Your task to perform on an android device: Open calendar and show me the fourth week of next month Image 0: 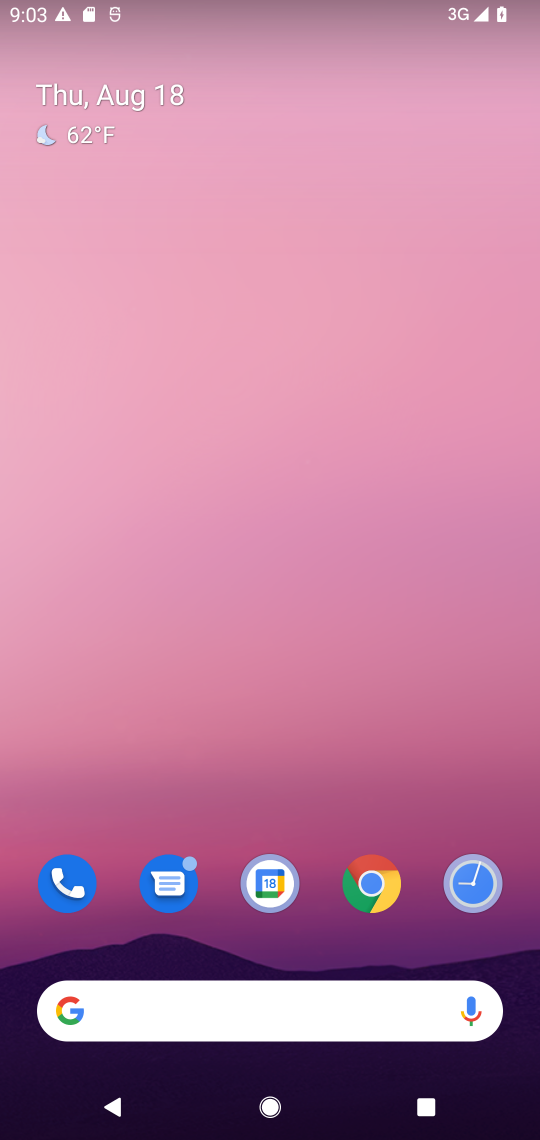
Step 0: click (258, 886)
Your task to perform on an android device: Open calendar and show me the fourth week of next month Image 1: 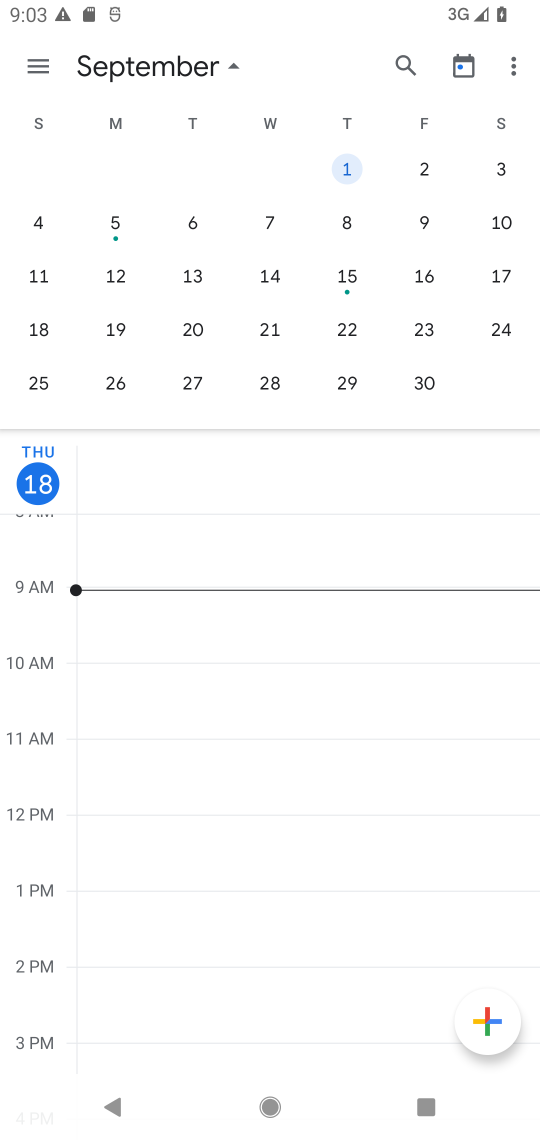
Step 1: click (117, 329)
Your task to perform on an android device: Open calendar and show me the fourth week of next month Image 2: 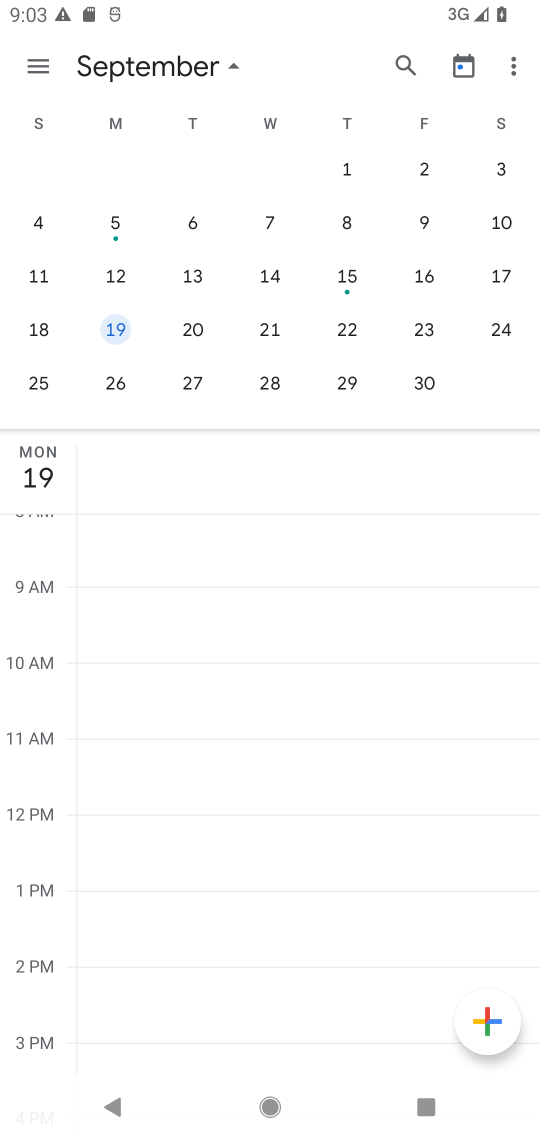
Step 2: task complete